Your task to perform on an android device: set default search engine in the chrome app Image 0: 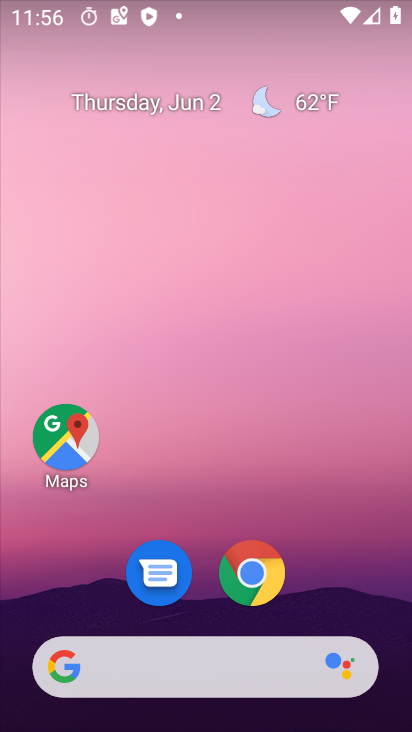
Step 0: click (257, 176)
Your task to perform on an android device: set default search engine in the chrome app Image 1: 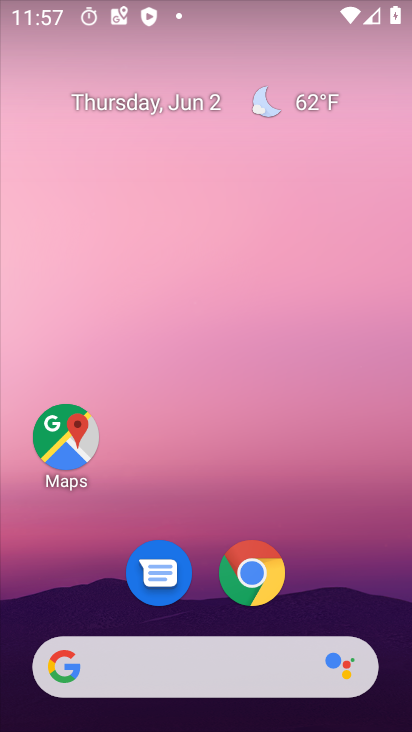
Step 1: drag from (243, 645) to (268, 0)
Your task to perform on an android device: set default search engine in the chrome app Image 2: 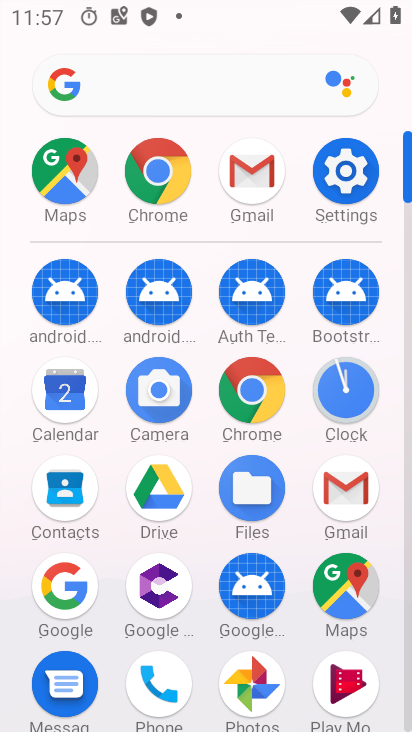
Step 2: click (261, 392)
Your task to perform on an android device: set default search engine in the chrome app Image 3: 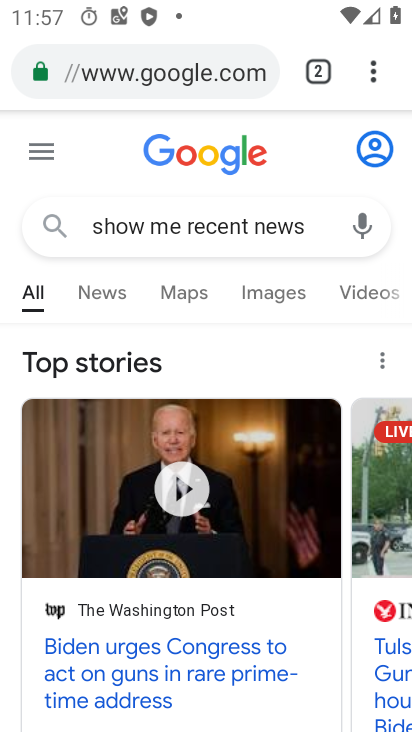
Step 3: drag from (379, 80) to (135, 576)
Your task to perform on an android device: set default search engine in the chrome app Image 4: 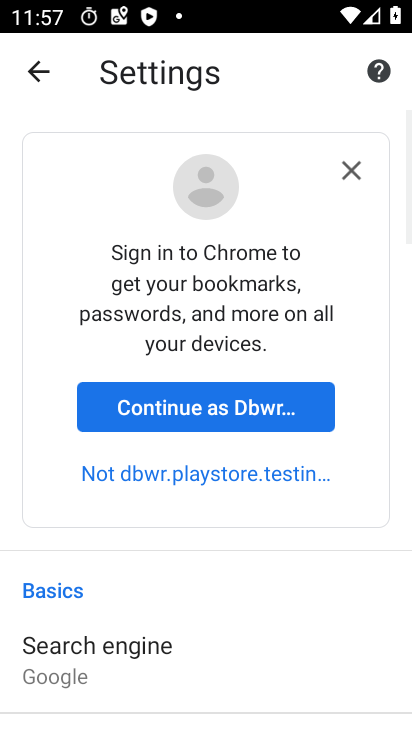
Step 4: click (112, 655)
Your task to perform on an android device: set default search engine in the chrome app Image 5: 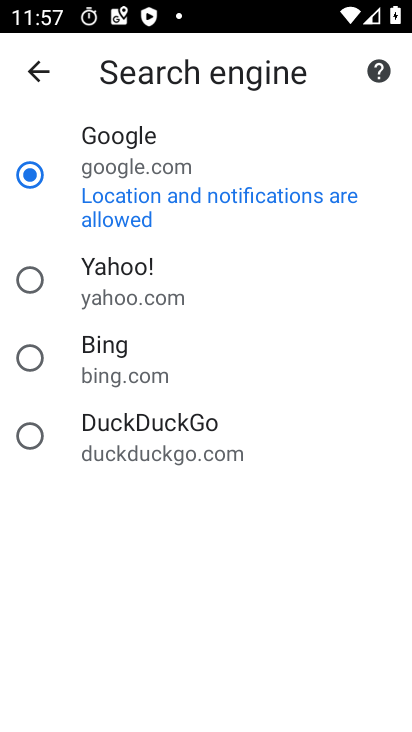
Step 5: task complete